Your task to perform on an android device: clear history in the chrome app Image 0: 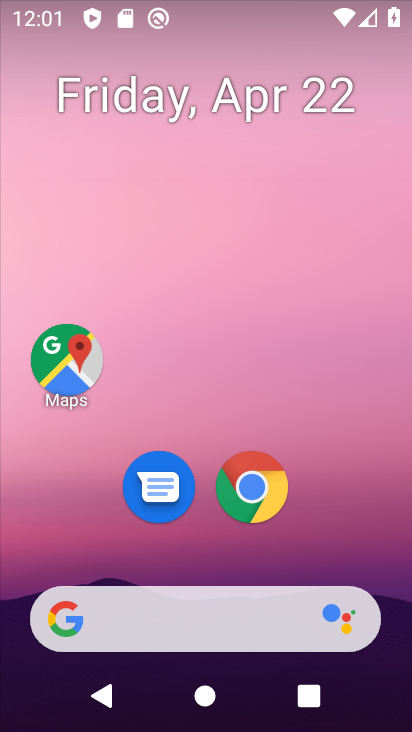
Step 0: click (260, 476)
Your task to perform on an android device: clear history in the chrome app Image 1: 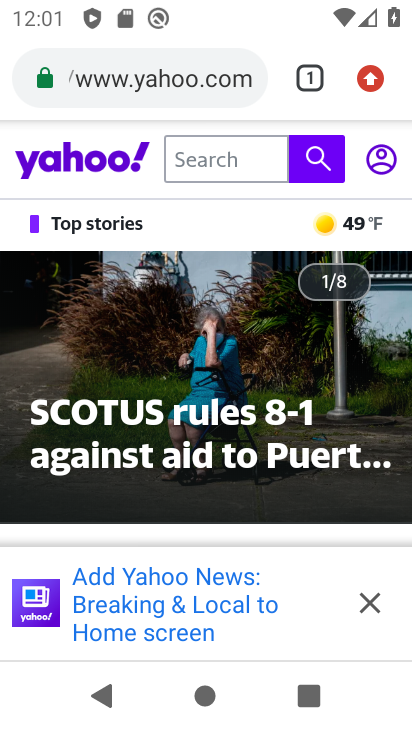
Step 1: drag from (369, 69) to (272, 540)
Your task to perform on an android device: clear history in the chrome app Image 2: 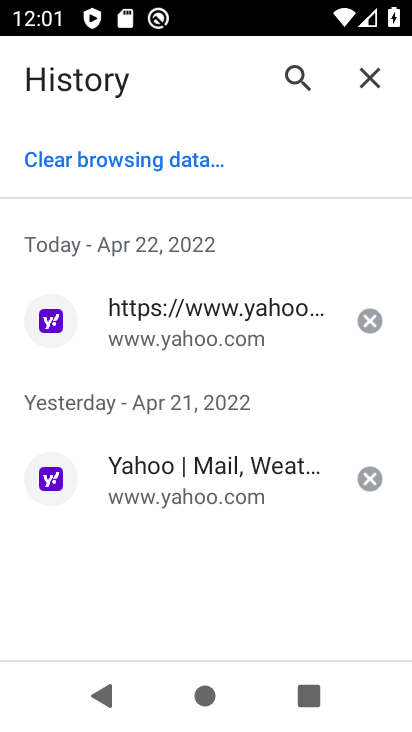
Step 2: click (134, 149)
Your task to perform on an android device: clear history in the chrome app Image 3: 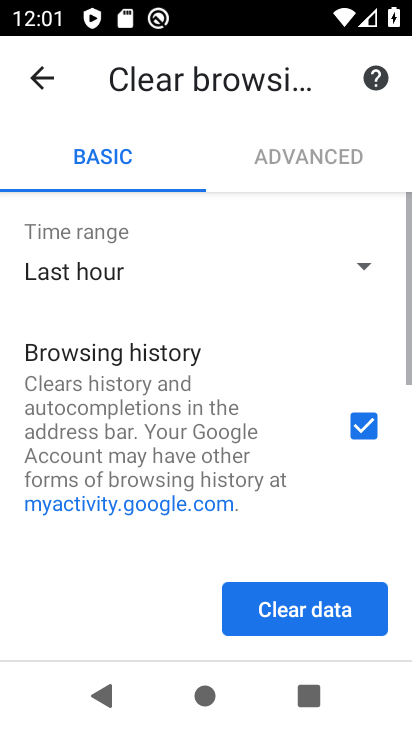
Step 3: click (291, 610)
Your task to perform on an android device: clear history in the chrome app Image 4: 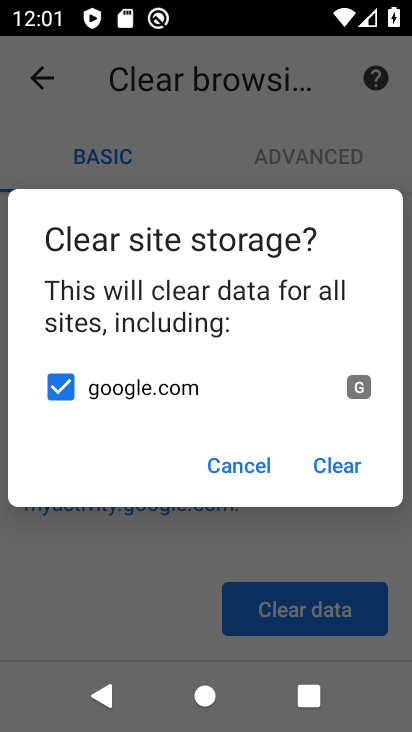
Step 4: click (350, 464)
Your task to perform on an android device: clear history in the chrome app Image 5: 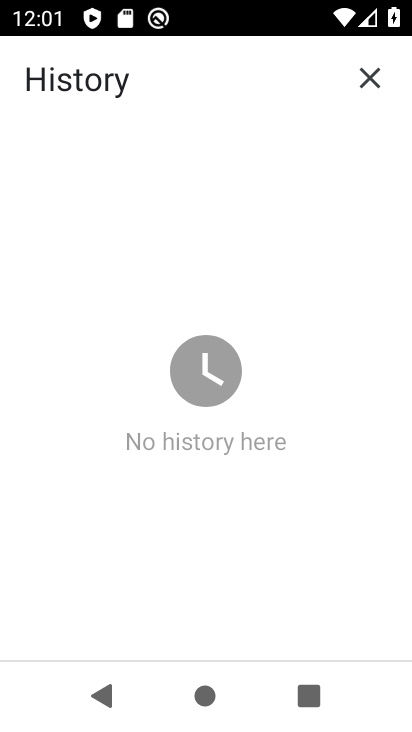
Step 5: task complete